Your task to perform on an android device: choose inbox layout in the gmail app Image 0: 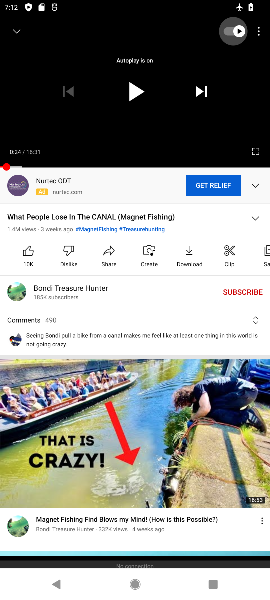
Step 0: press home button
Your task to perform on an android device: choose inbox layout in the gmail app Image 1: 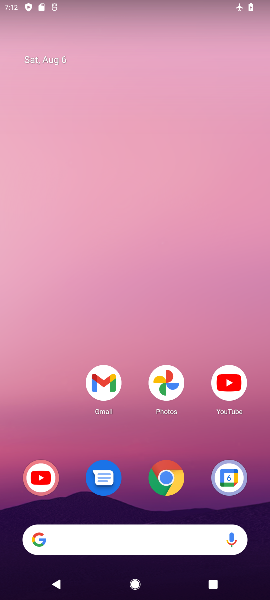
Step 1: drag from (138, 426) to (124, 138)
Your task to perform on an android device: choose inbox layout in the gmail app Image 2: 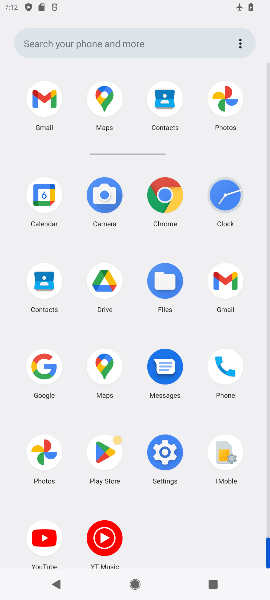
Step 2: click (42, 109)
Your task to perform on an android device: choose inbox layout in the gmail app Image 3: 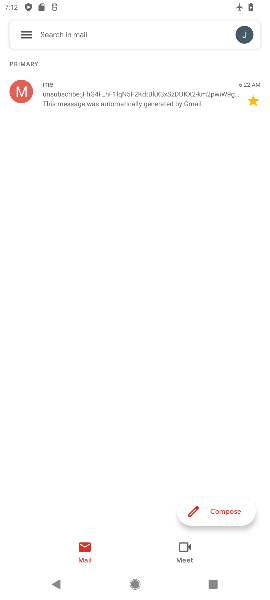
Step 3: click (27, 38)
Your task to perform on an android device: choose inbox layout in the gmail app Image 4: 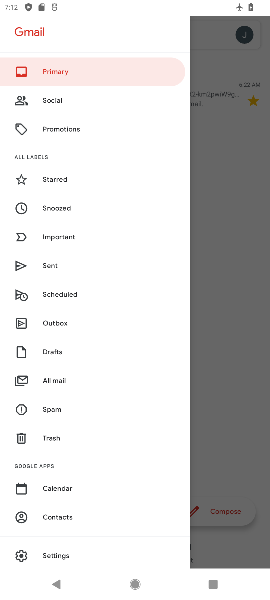
Step 4: click (52, 555)
Your task to perform on an android device: choose inbox layout in the gmail app Image 5: 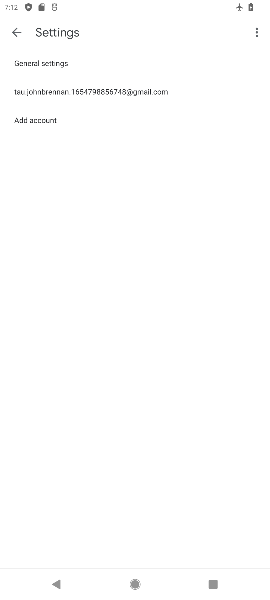
Step 5: click (61, 95)
Your task to perform on an android device: choose inbox layout in the gmail app Image 6: 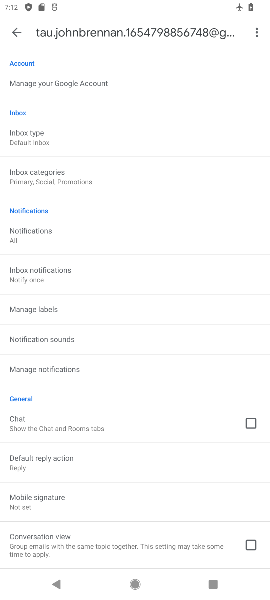
Step 6: click (32, 137)
Your task to perform on an android device: choose inbox layout in the gmail app Image 7: 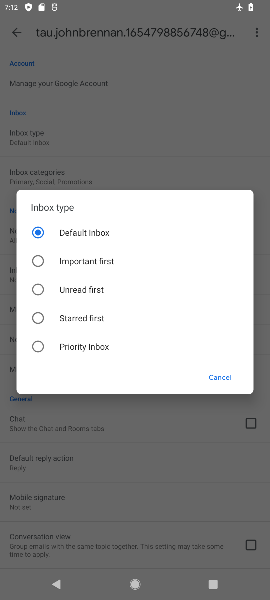
Step 7: task complete